Your task to perform on an android device: Search for vegetarian restaurants on Maps Image 0: 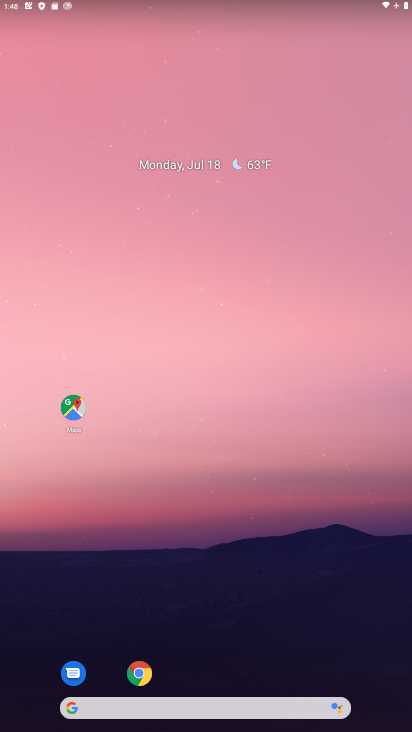
Step 0: drag from (149, 645) to (183, 89)
Your task to perform on an android device: Search for vegetarian restaurants on Maps Image 1: 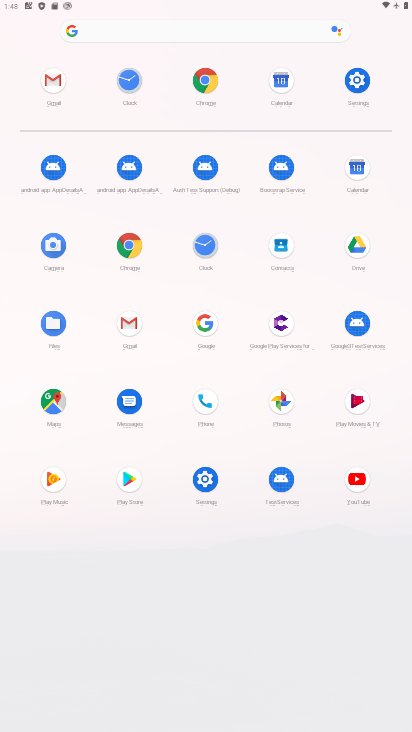
Step 1: click (45, 407)
Your task to perform on an android device: Search for vegetarian restaurants on Maps Image 2: 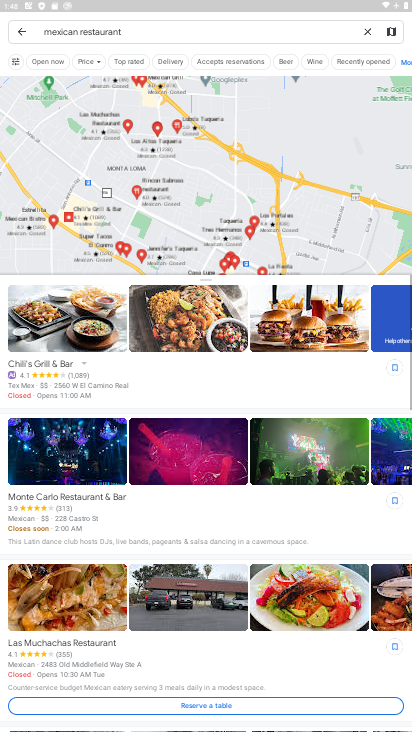
Step 2: click (363, 28)
Your task to perform on an android device: Search for vegetarian restaurants on Maps Image 3: 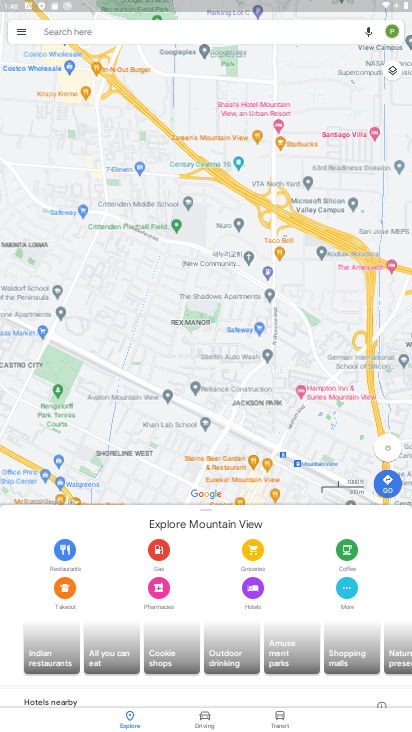
Step 3: click (187, 26)
Your task to perform on an android device: Search for vegetarian restaurants on Maps Image 4: 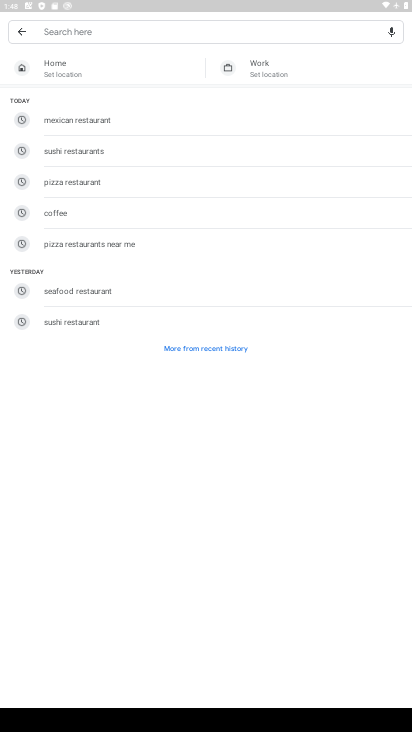
Step 4: click (126, 27)
Your task to perform on an android device: Search for vegetarian restaurants on Maps Image 5: 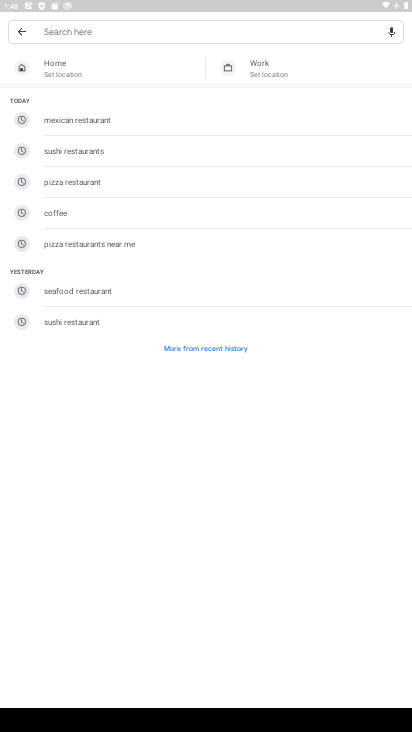
Step 5: type "vegetarian restaurants "
Your task to perform on an android device: Search for vegetarian restaurants on Maps Image 6: 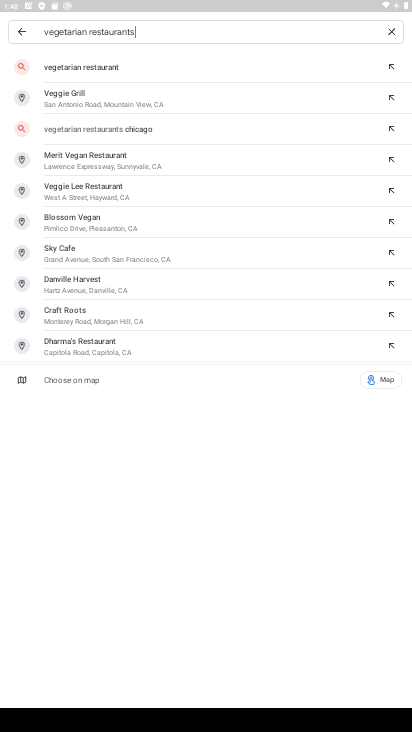
Step 6: click (103, 60)
Your task to perform on an android device: Search for vegetarian restaurants on Maps Image 7: 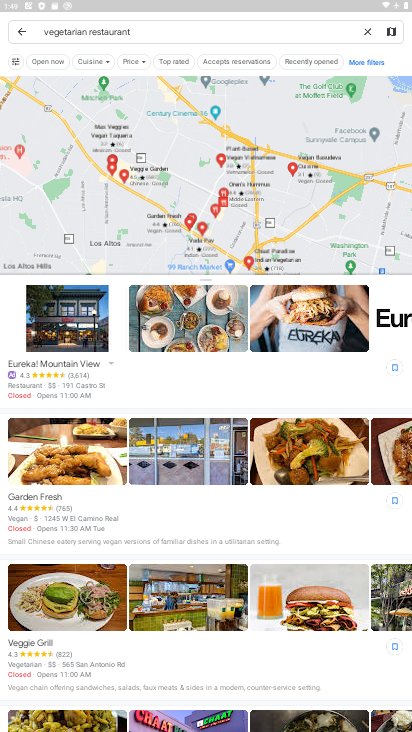
Step 7: task complete